Your task to perform on an android device: Open Google Chrome and open the bookmarks view Image 0: 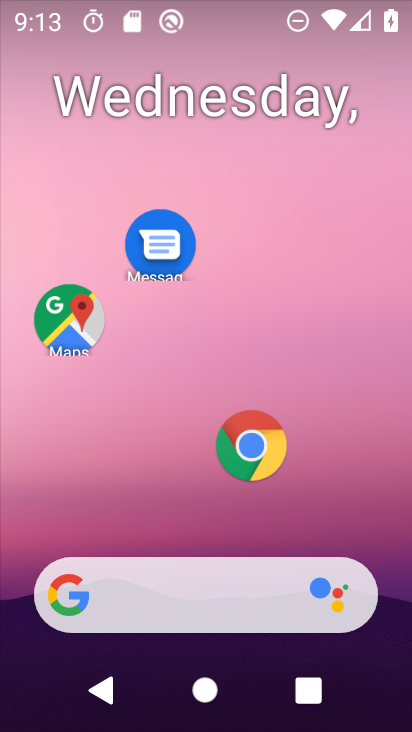
Step 0: press home button
Your task to perform on an android device: Open Google Chrome and open the bookmarks view Image 1: 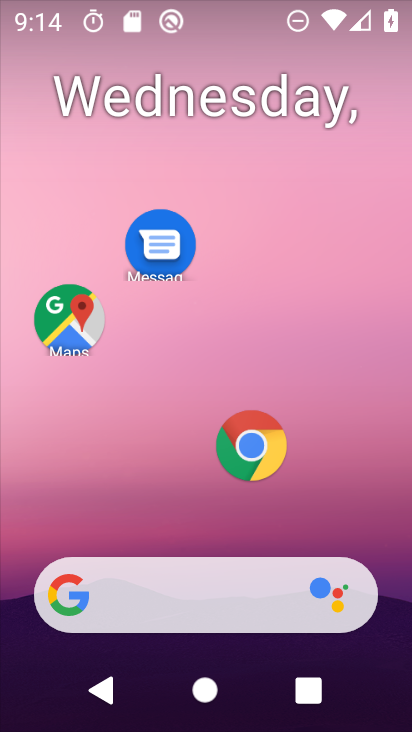
Step 1: click (244, 445)
Your task to perform on an android device: Open Google Chrome and open the bookmarks view Image 2: 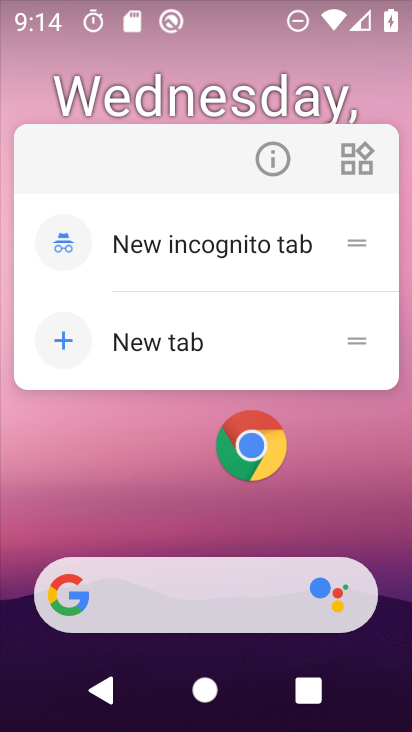
Step 2: click (252, 452)
Your task to perform on an android device: Open Google Chrome and open the bookmarks view Image 3: 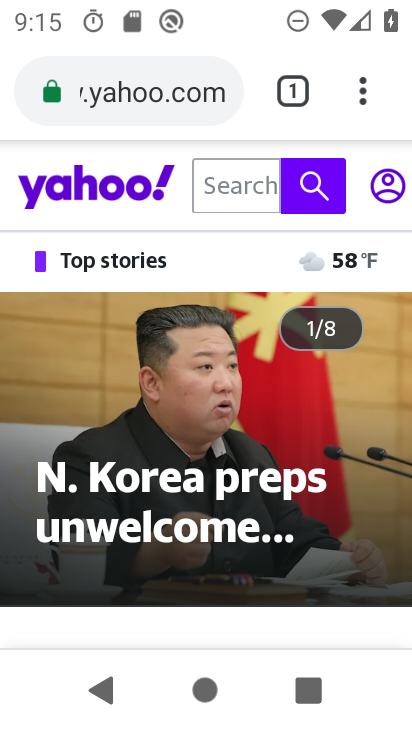
Step 3: click (359, 90)
Your task to perform on an android device: Open Google Chrome and open the bookmarks view Image 4: 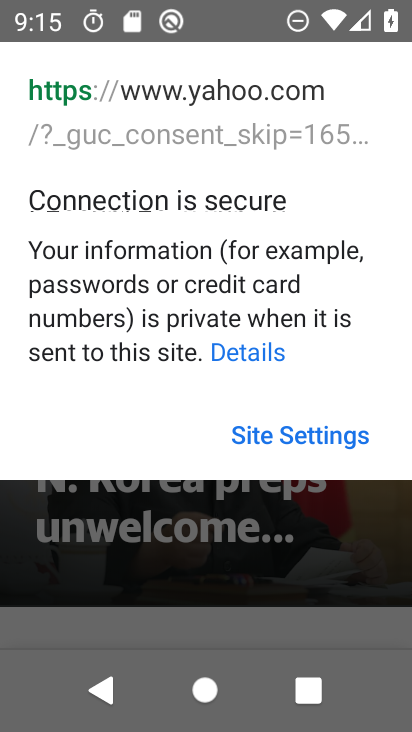
Step 4: click (196, 554)
Your task to perform on an android device: Open Google Chrome and open the bookmarks view Image 5: 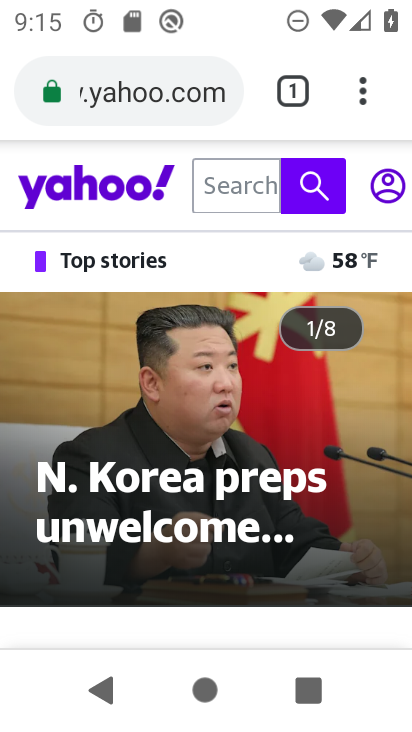
Step 5: click (366, 88)
Your task to perform on an android device: Open Google Chrome and open the bookmarks view Image 6: 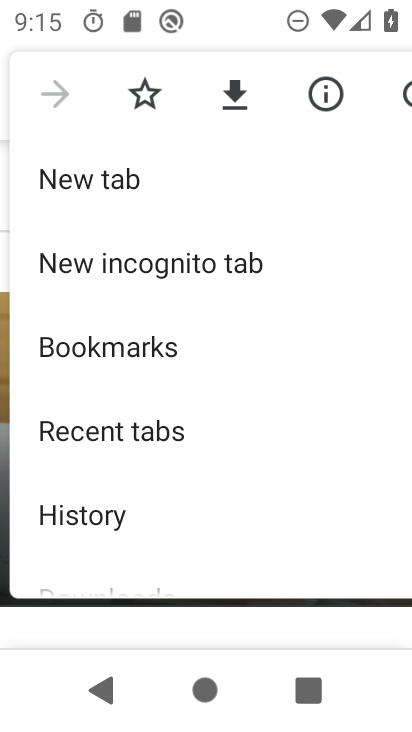
Step 6: click (182, 348)
Your task to perform on an android device: Open Google Chrome and open the bookmarks view Image 7: 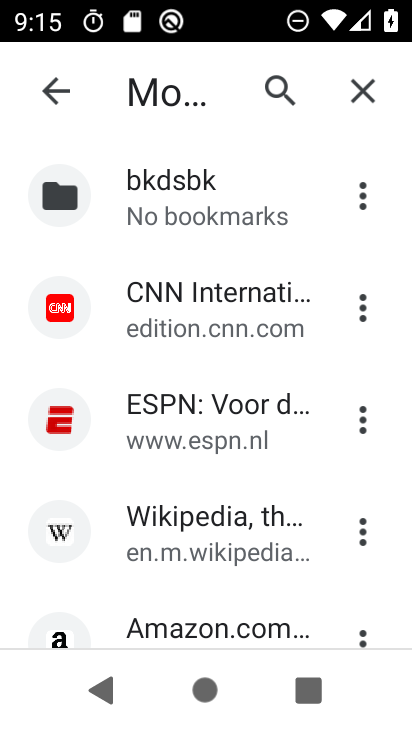
Step 7: task complete